Your task to perform on an android device: find snoozed emails in the gmail app Image 0: 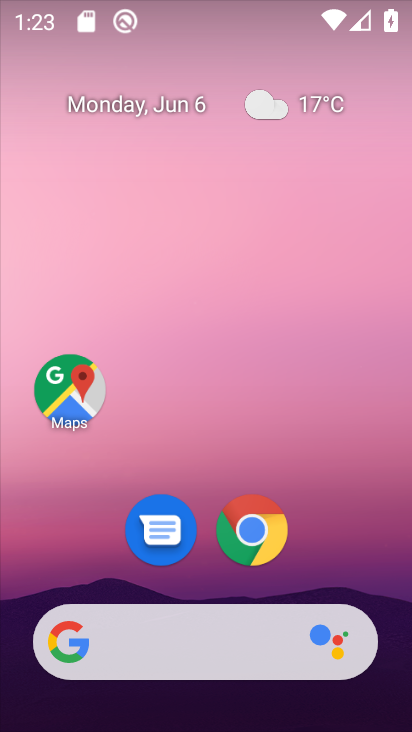
Step 0: drag from (396, 602) to (305, 183)
Your task to perform on an android device: find snoozed emails in the gmail app Image 1: 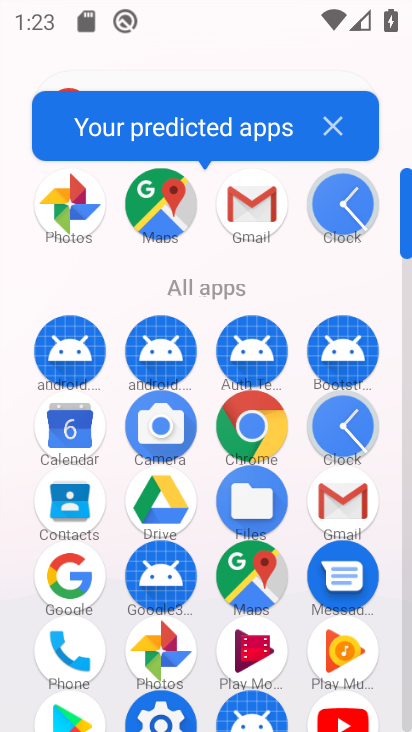
Step 1: click (251, 214)
Your task to perform on an android device: find snoozed emails in the gmail app Image 2: 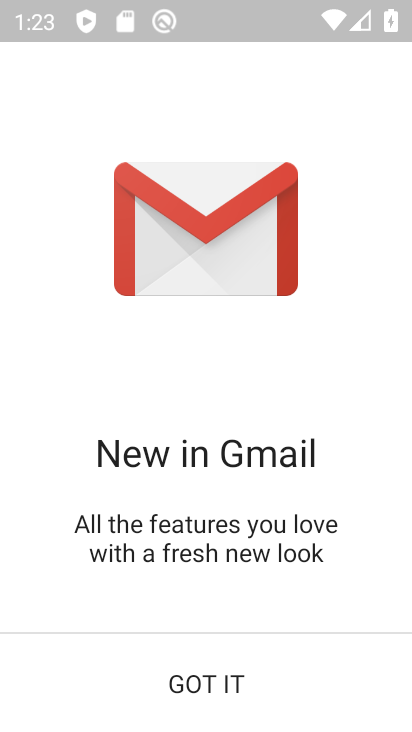
Step 2: click (232, 675)
Your task to perform on an android device: find snoozed emails in the gmail app Image 3: 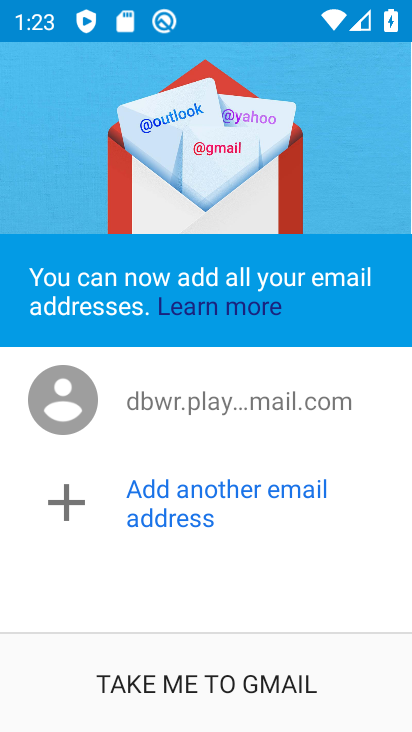
Step 3: click (232, 675)
Your task to perform on an android device: find snoozed emails in the gmail app Image 4: 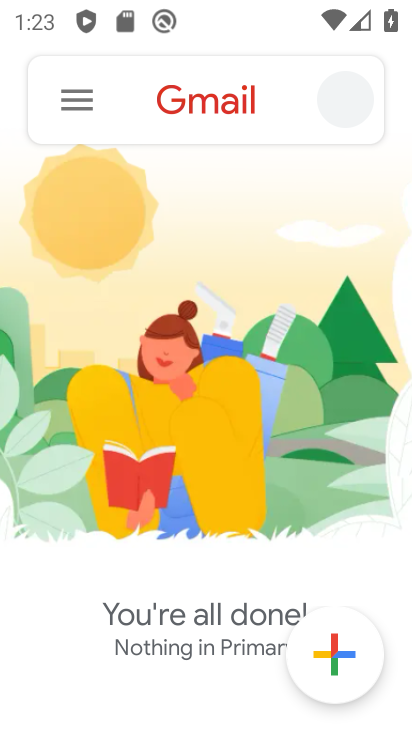
Step 4: click (78, 100)
Your task to perform on an android device: find snoozed emails in the gmail app Image 5: 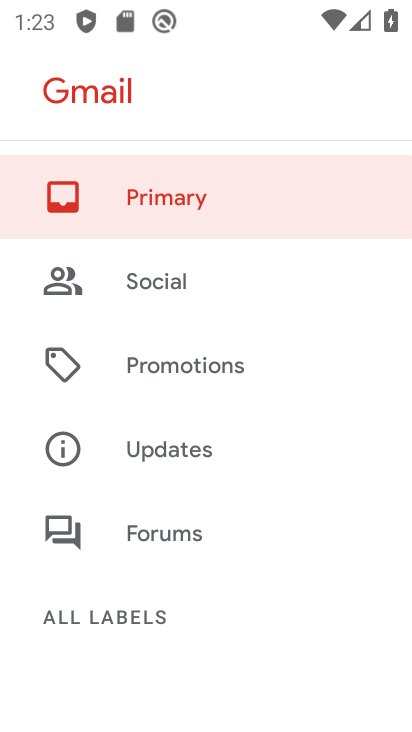
Step 5: drag from (211, 635) to (178, 249)
Your task to perform on an android device: find snoozed emails in the gmail app Image 6: 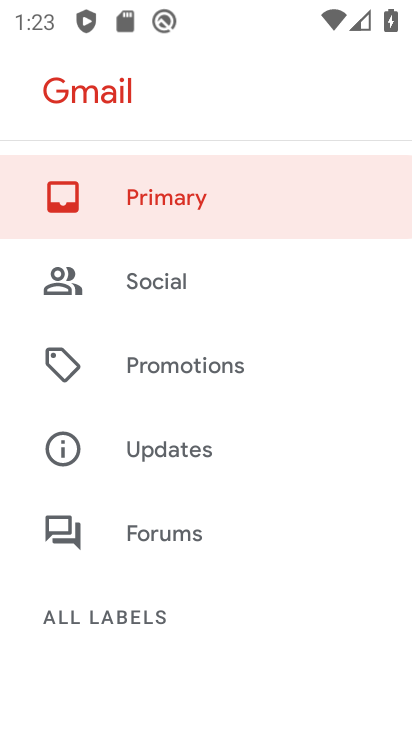
Step 6: drag from (165, 616) to (98, 18)
Your task to perform on an android device: find snoozed emails in the gmail app Image 7: 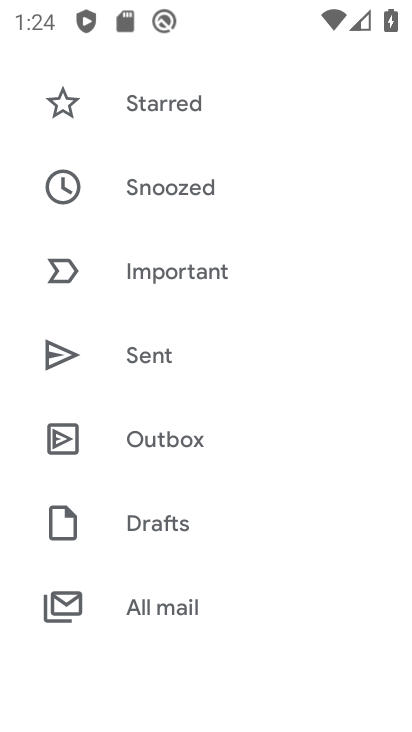
Step 7: drag from (170, 632) to (188, 704)
Your task to perform on an android device: find snoozed emails in the gmail app Image 8: 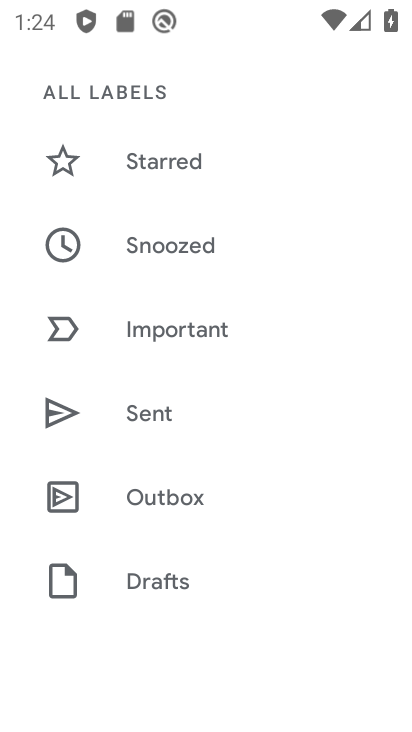
Step 8: click (178, 263)
Your task to perform on an android device: find snoozed emails in the gmail app Image 9: 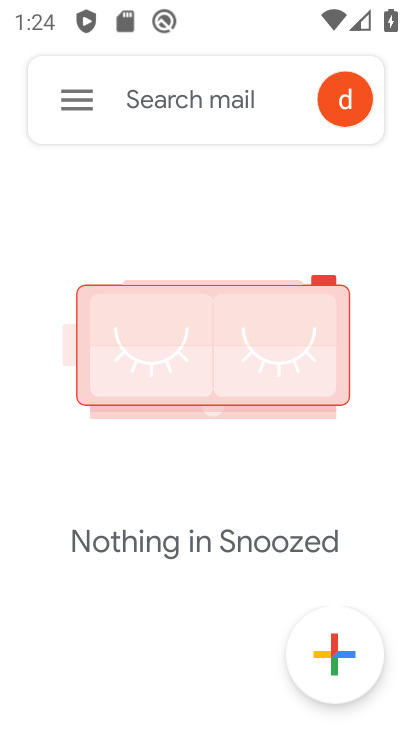
Step 9: task complete